Your task to perform on an android device: check google app version Image 0: 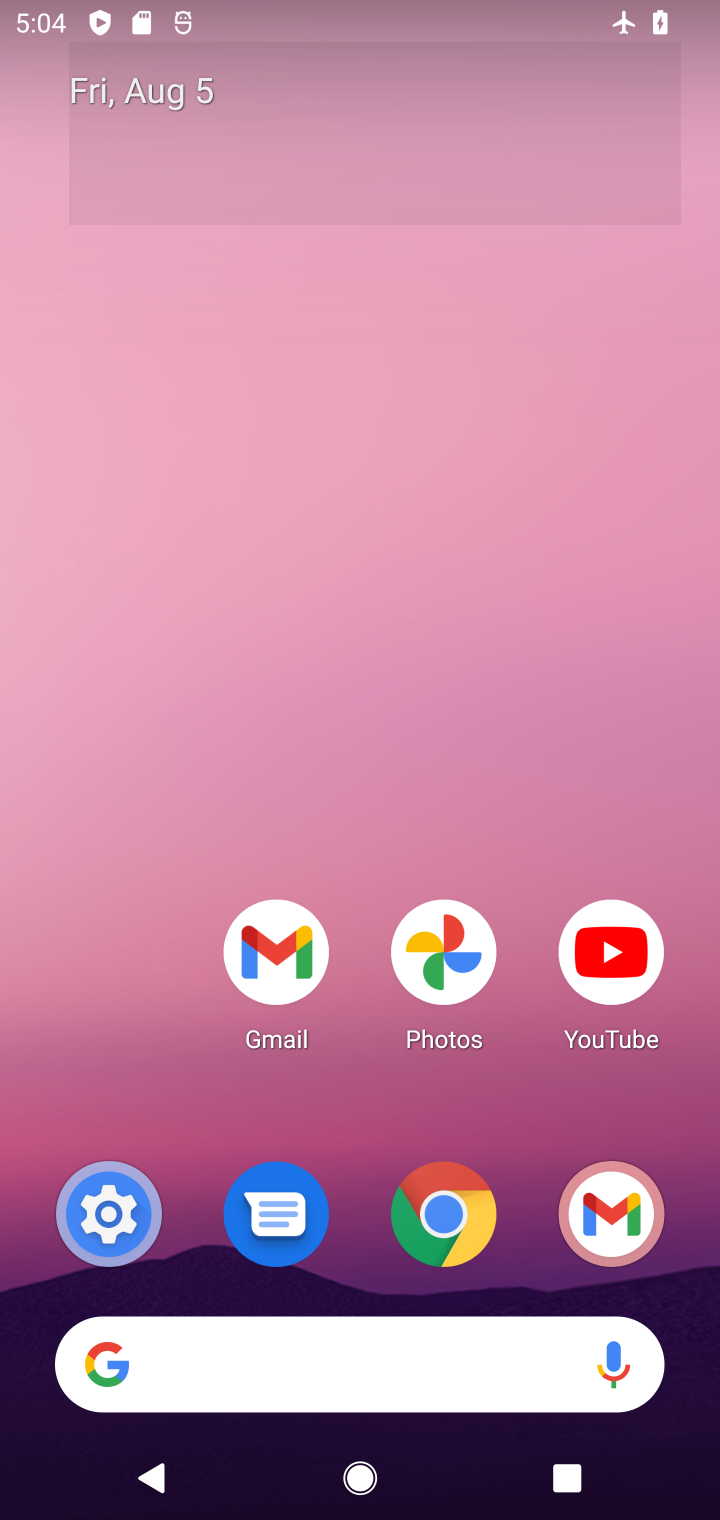
Step 0: drag from (214, 845) to (334, 27)
Your task to perform on an android device: check google app version Image 1: 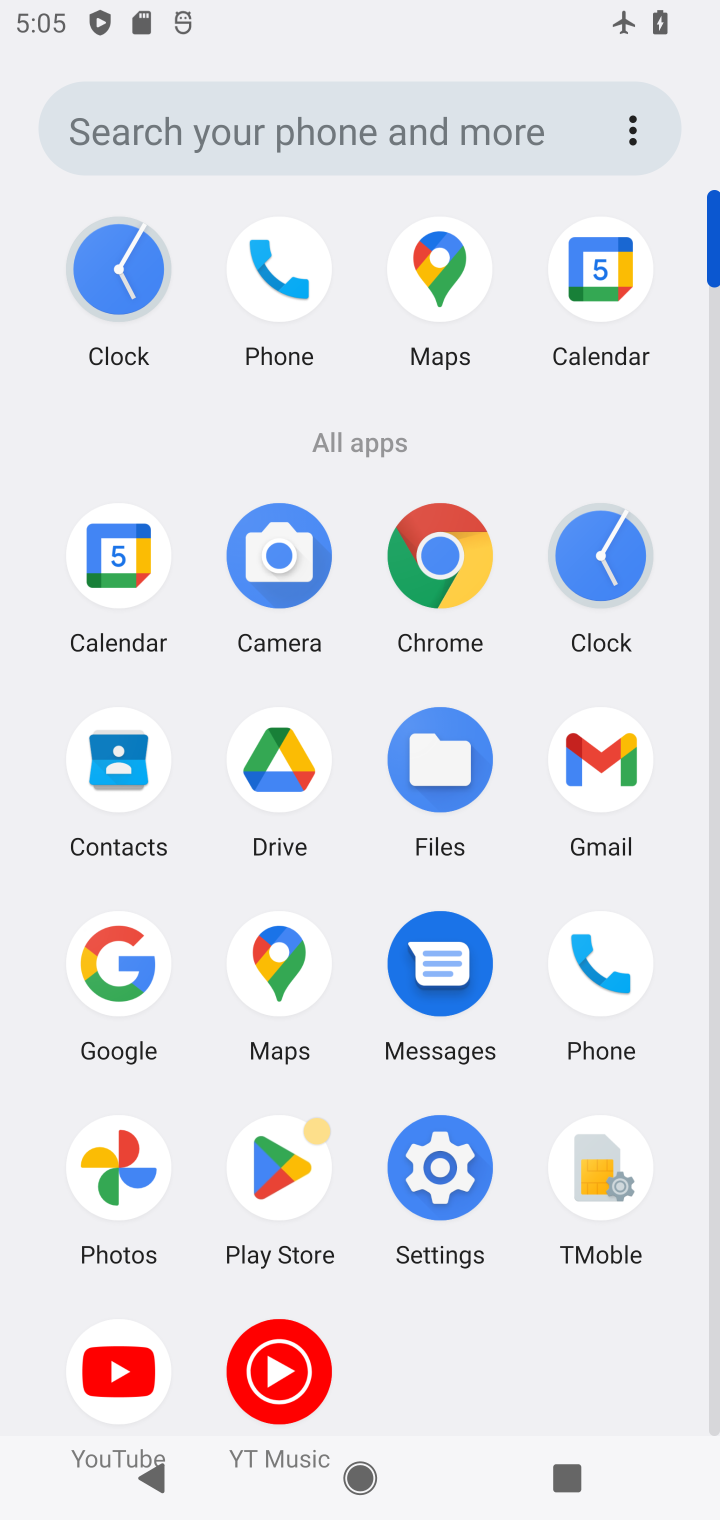
Step 1: click (130, 964)
Your task to perform on an android device: check google app version Image 2: 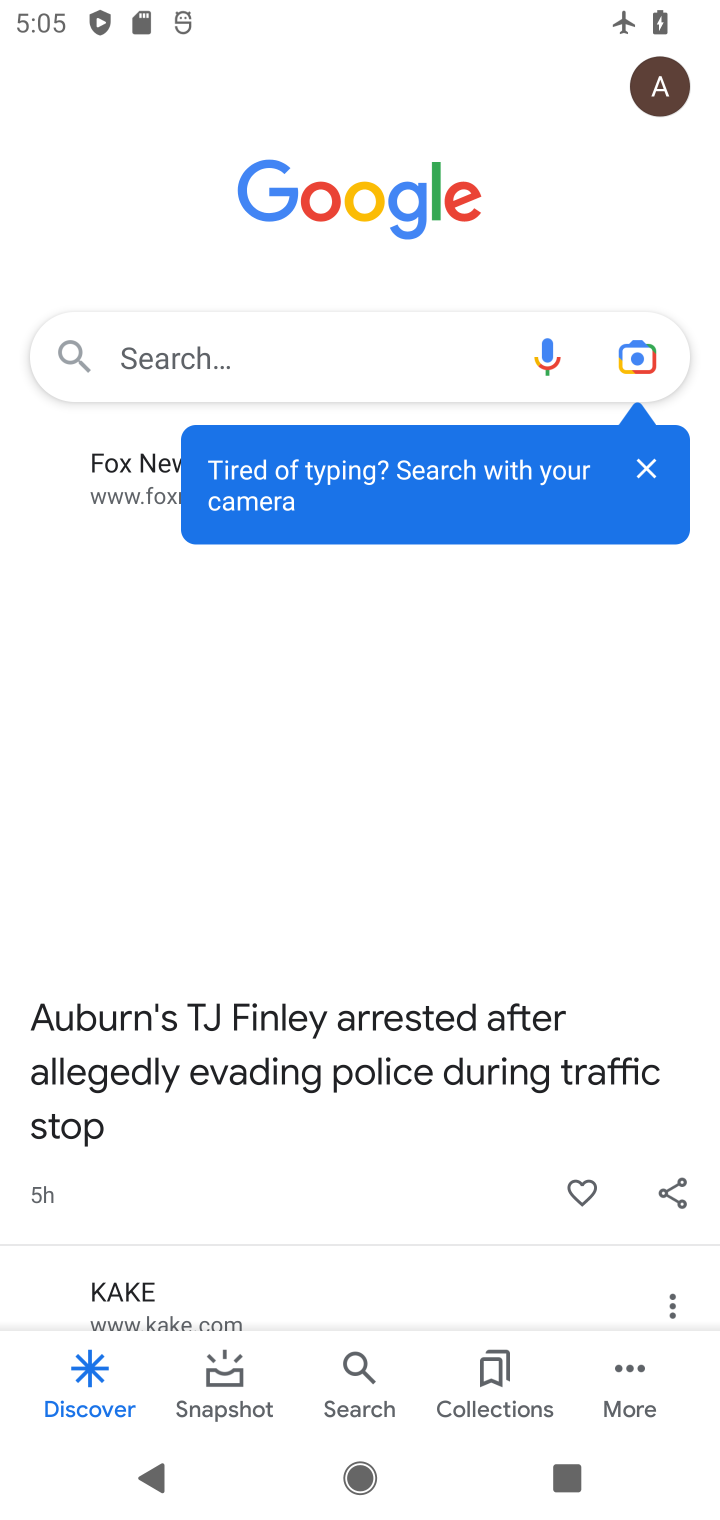
Step 2: click (620, 1358)
Your task to perform on an android device: check google app version Image 3: 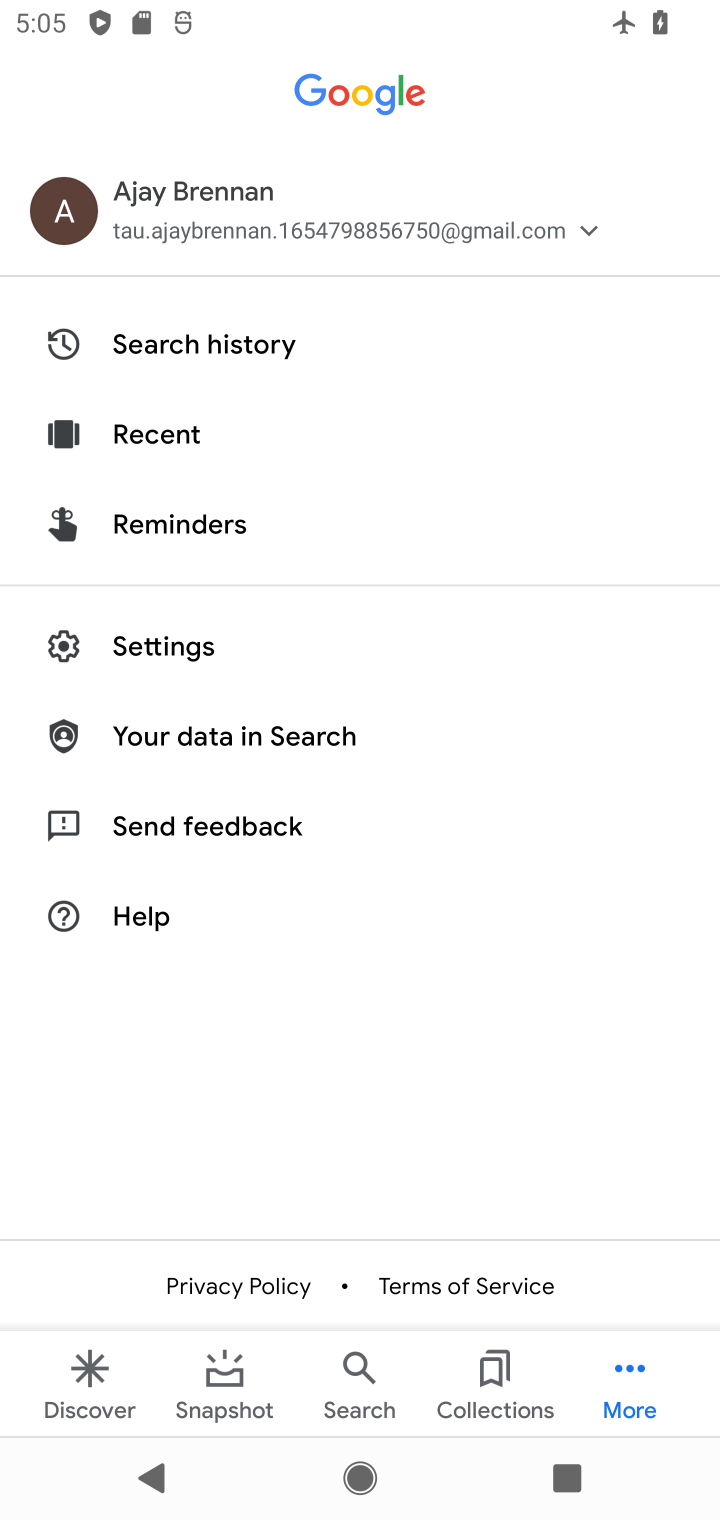
Step 3: click (207, 634)
Your task to perform on an android device: check google app version Image 4: 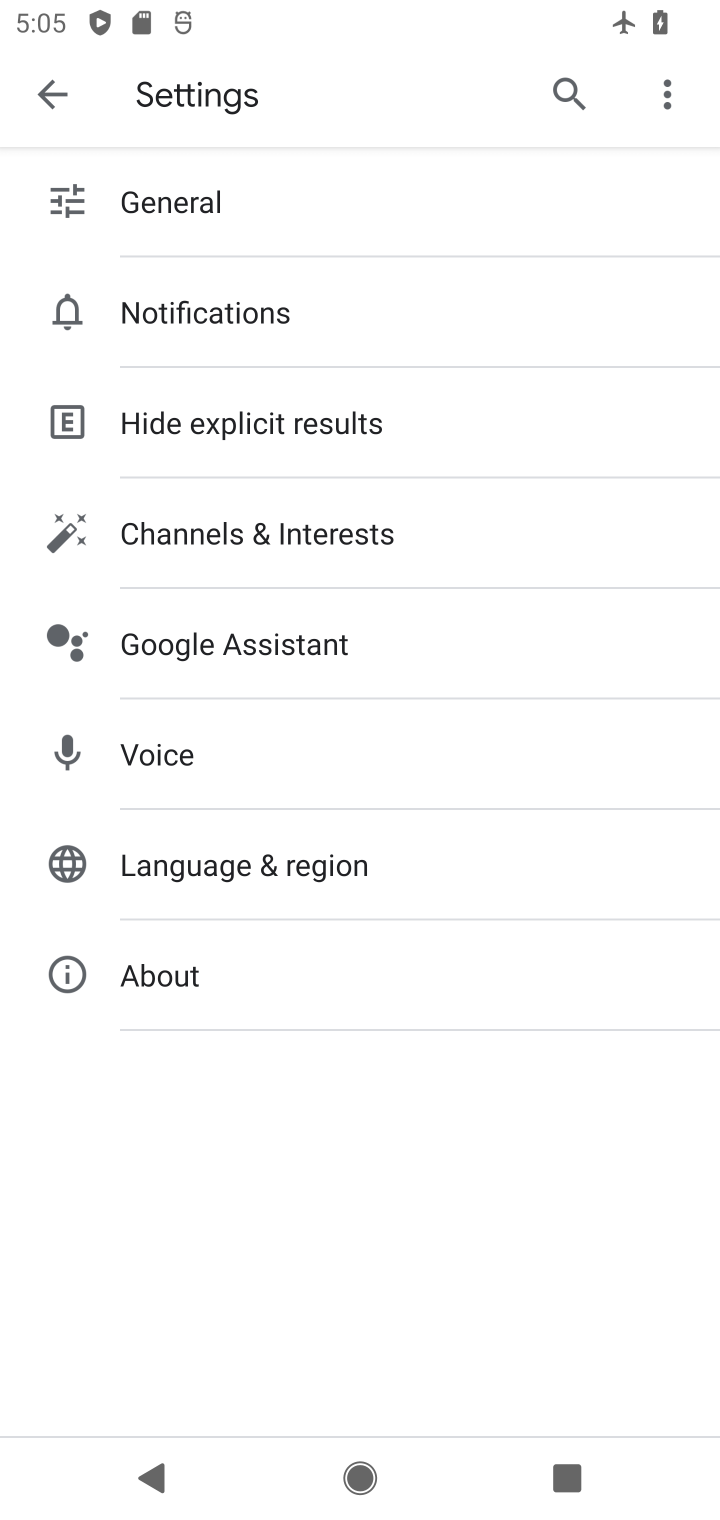
Step 4: click (149, 976)
Your task to perform on an android device: check google app version Image 5: 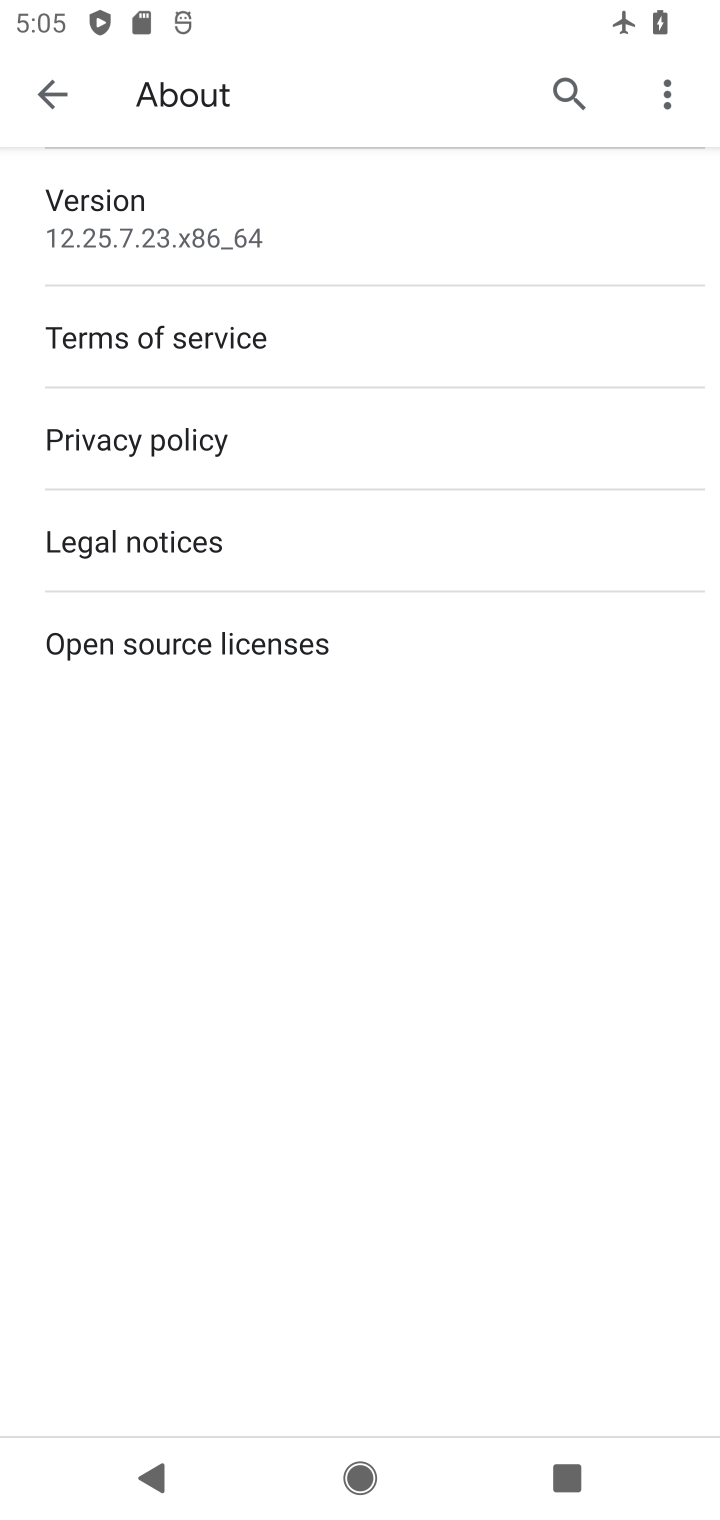
Step 5: task complete